Your task to perform on an android device: set an alarm Image 0: 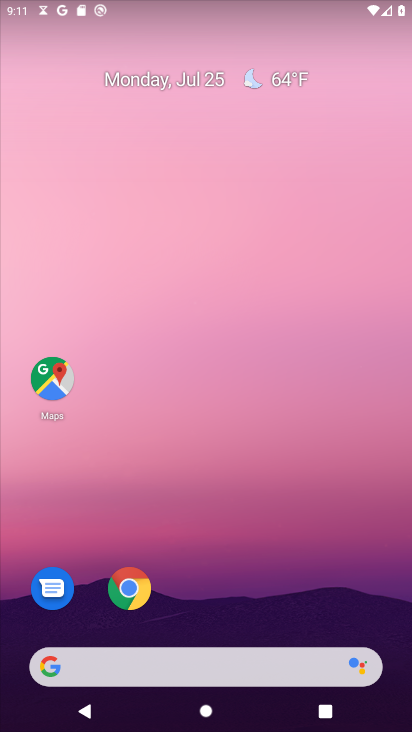
Step 0: drag from (157, 648) to (147, 139)
Your task to perform on an android device: set an alarm Image 1: 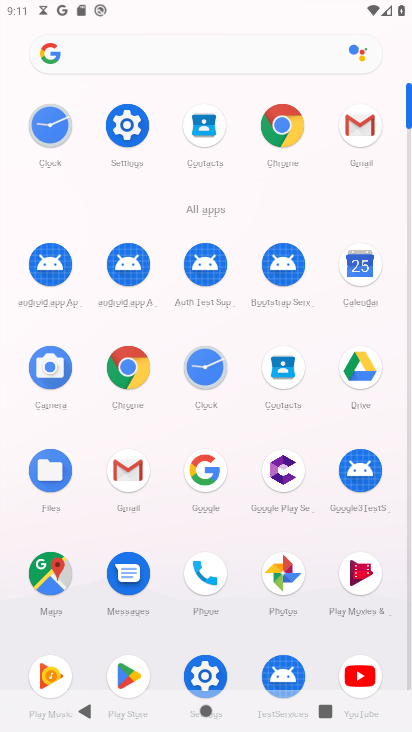
Step 1: click (205, 369)
Your task to perform on an android device: set an alarm Image 2: 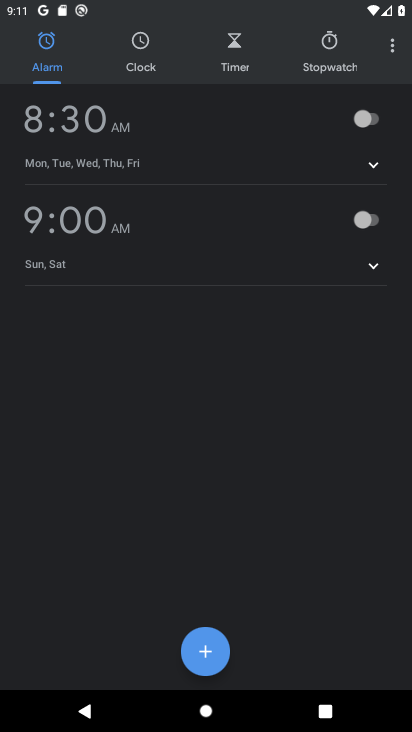
Step 2: click (211, 657)
Your task to perform on an android device: set an alarm Image 3: 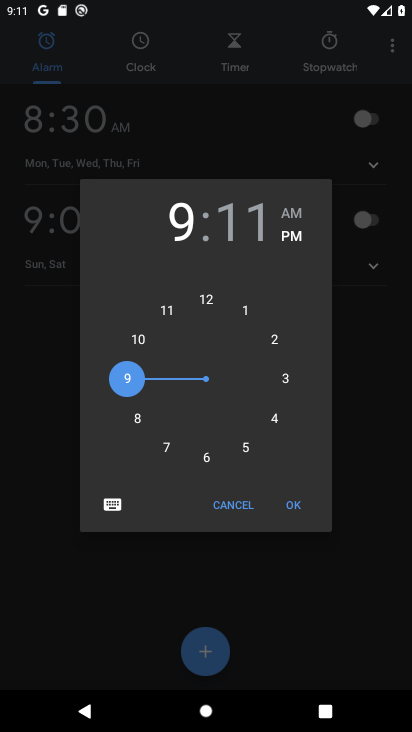
Step 3: click (147, 413)
Your task to perform on an android device: set an alarm Image 4: 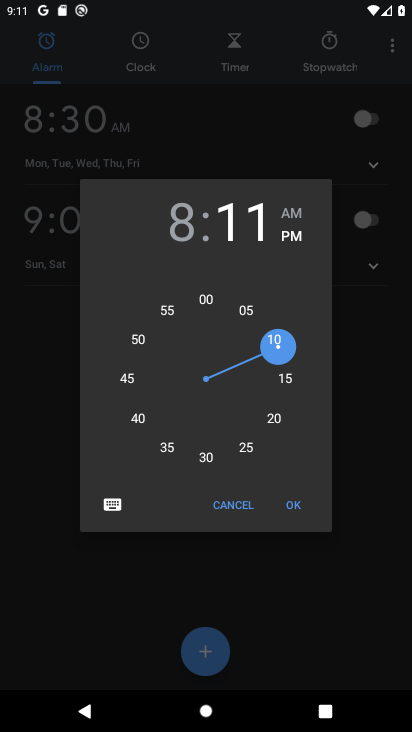
Step 4: click (291, 503)
Your task to perform on an android device: set an alarm Image 5: 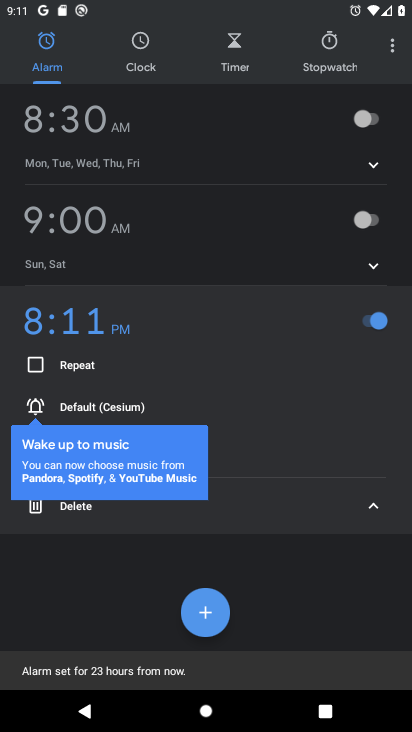
Step 5: task complete